Your task to perform on an android device: install app "Pinterest" Image 0: 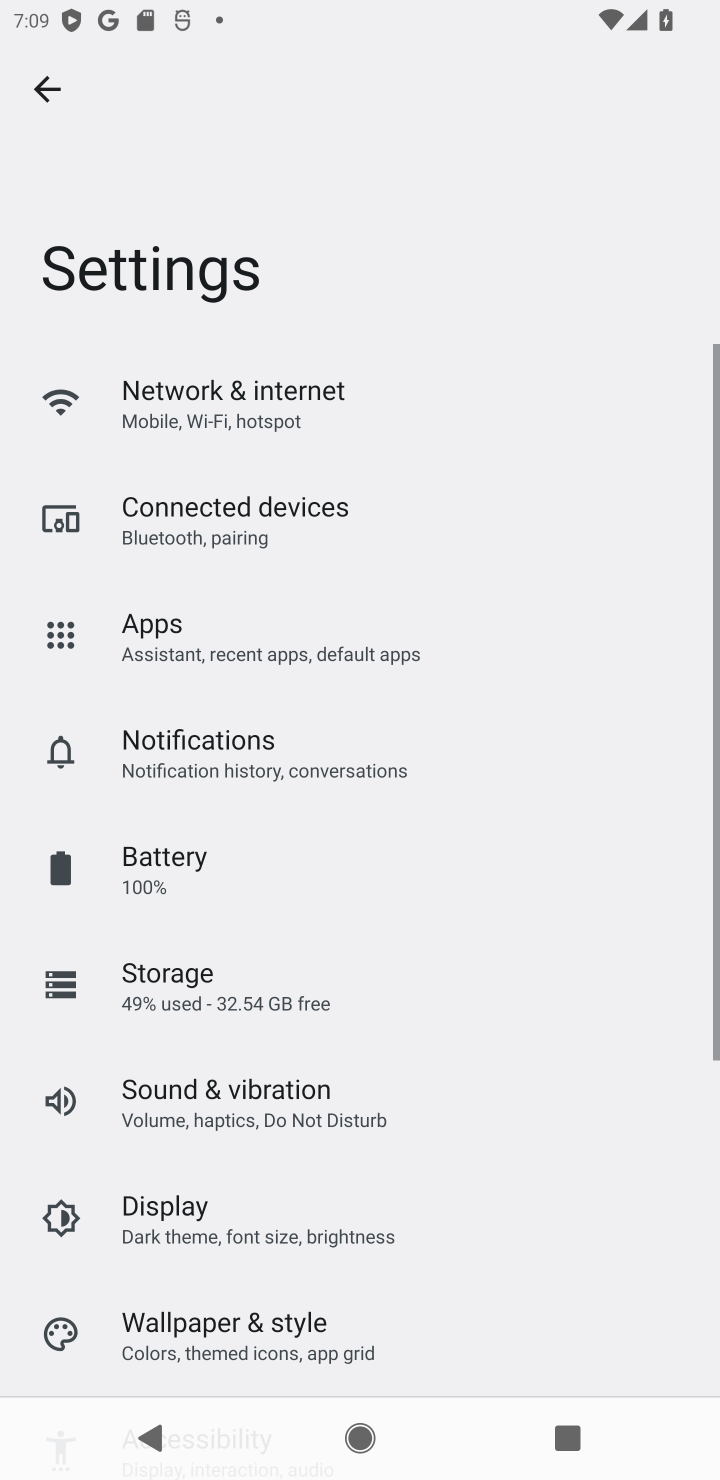
Step 0: press home button
Your task to perform on an android device: install app "Pinterest" Image 1: 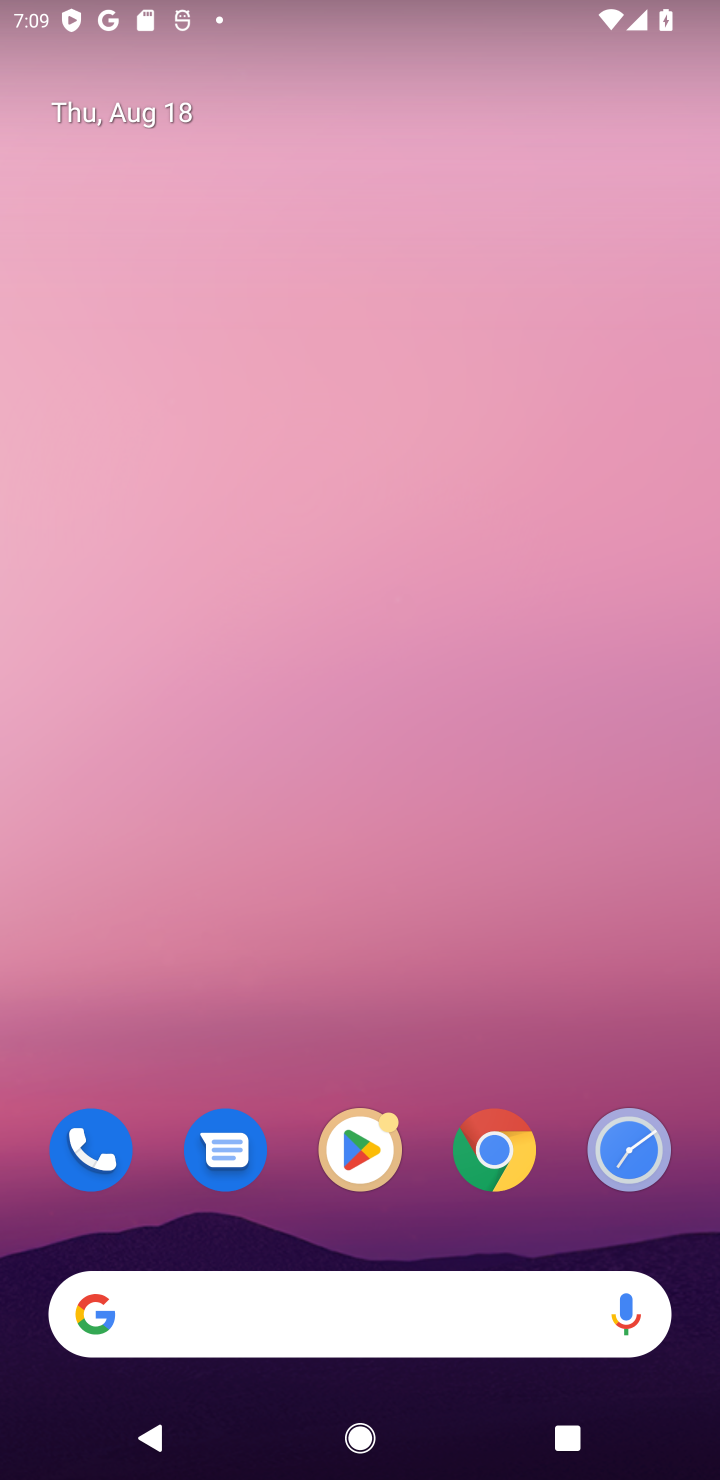
Step 1: drag from (408, 1255) to (232, 107)
Your task to perform on an android device: install app "Pinterest" Image 2: 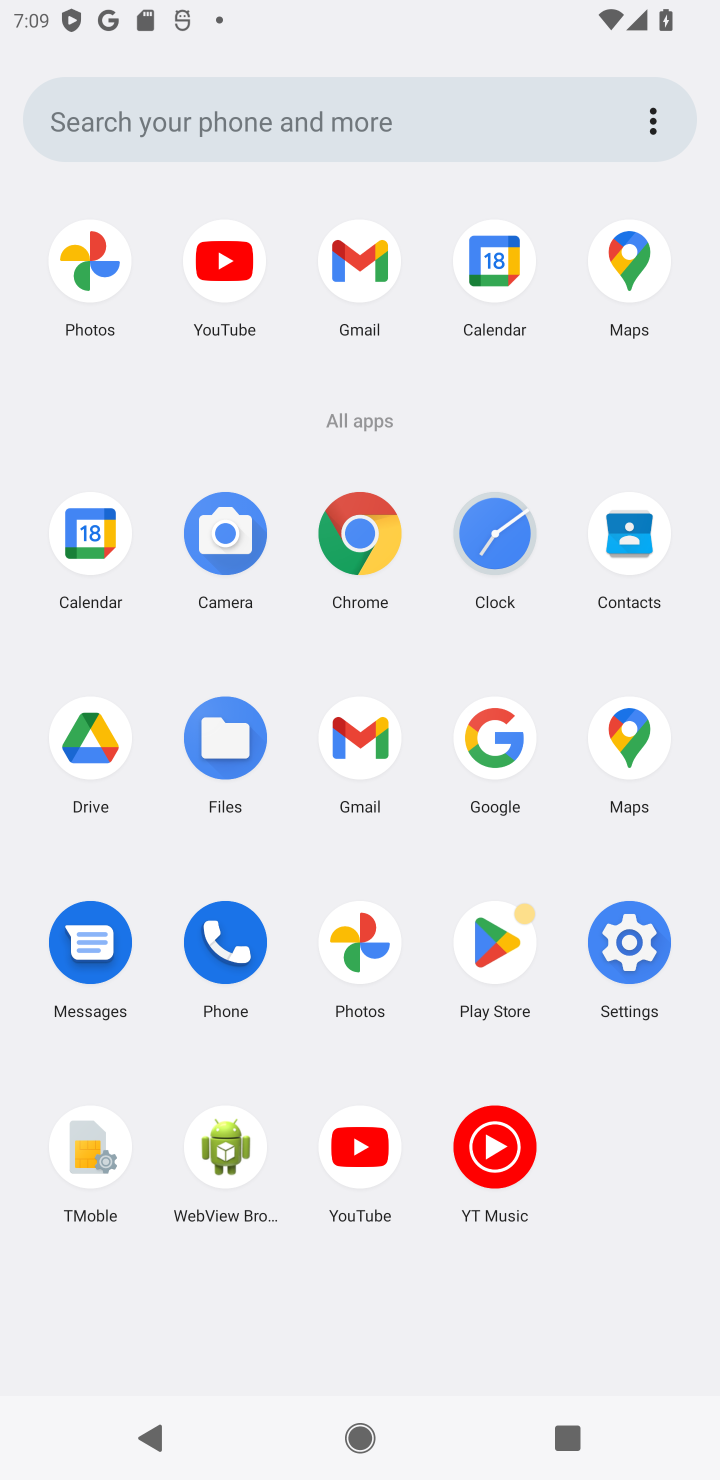
Step 2: click (497, 939)
Your task to perform on an android device: install app "Pinterest" Image 3: 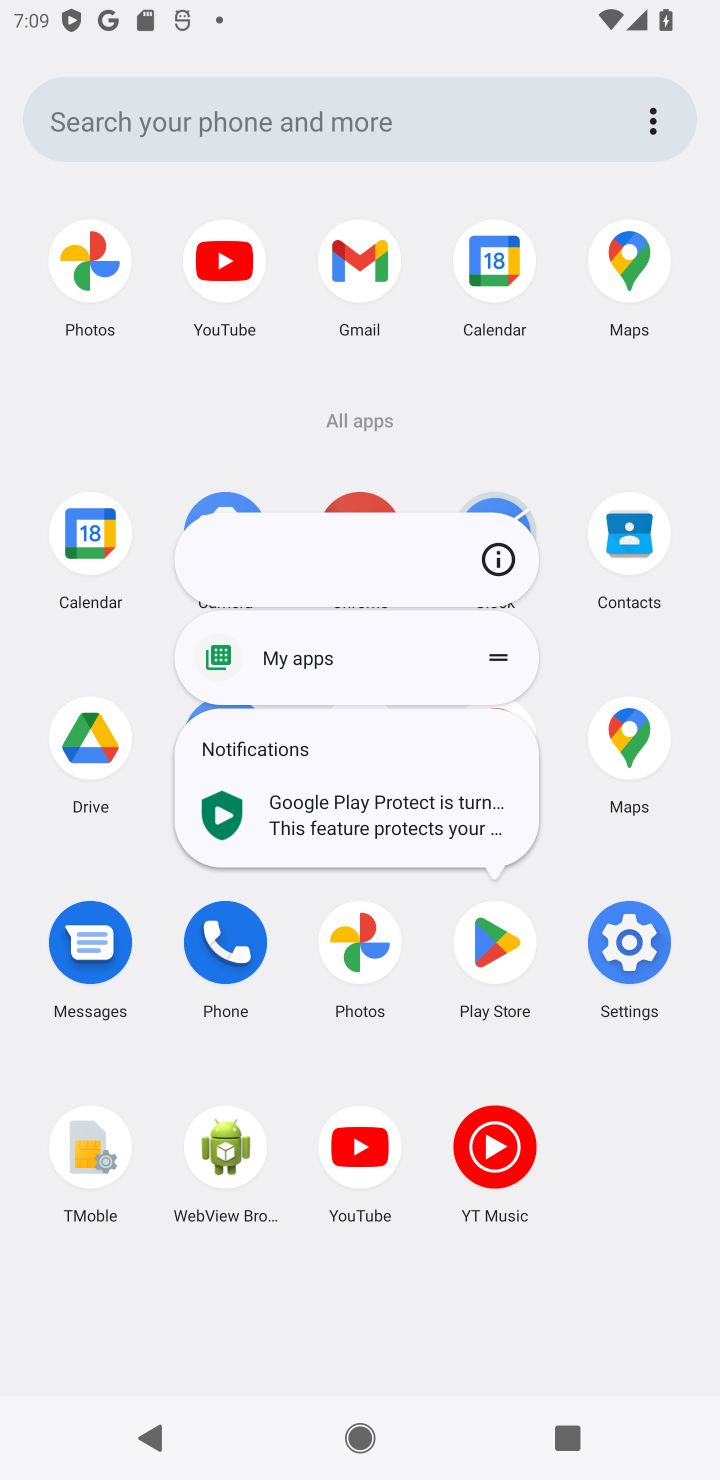
Step 3: click (515, 979)
Your task to perform on an android device: install app "Pinterest" Image 4: 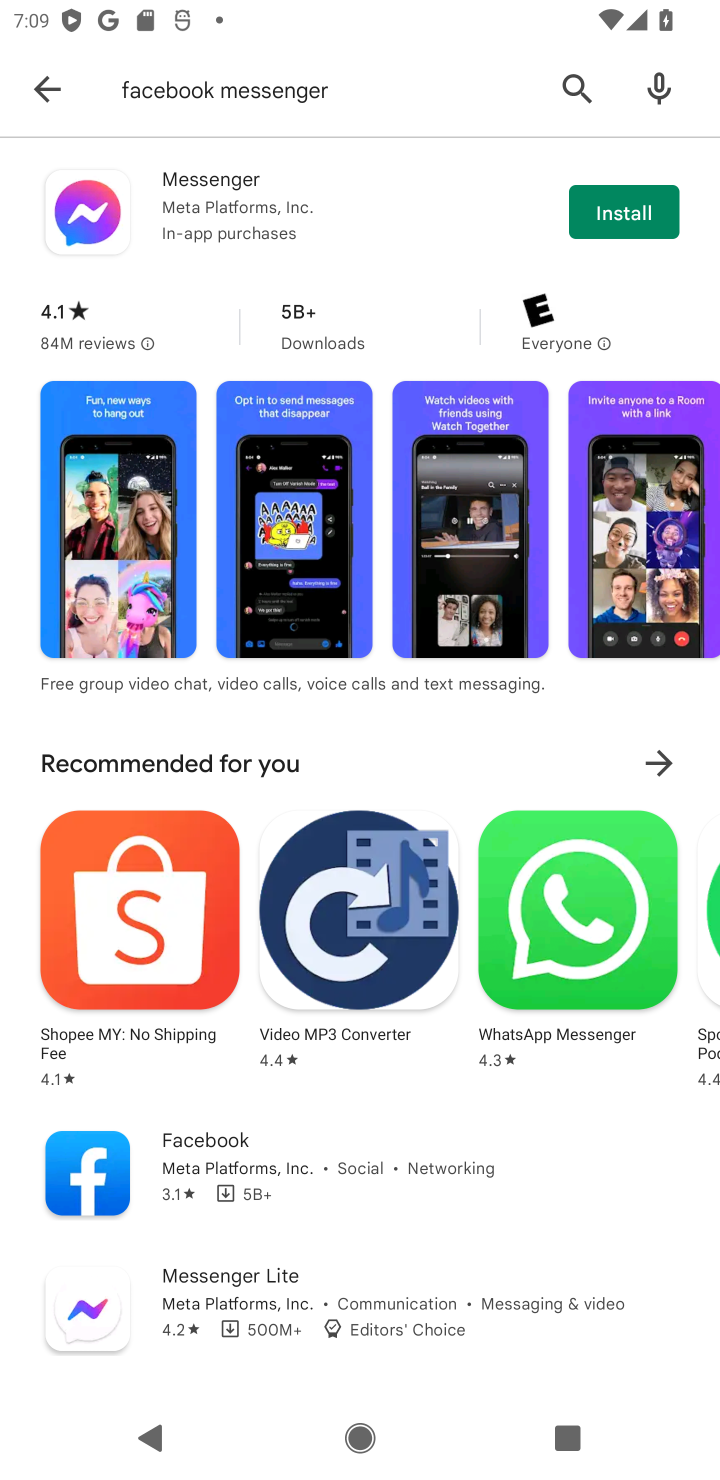
Step 4: click (35, 79)
Your task to perform on an android device: install app "Pinterest" Image 5: 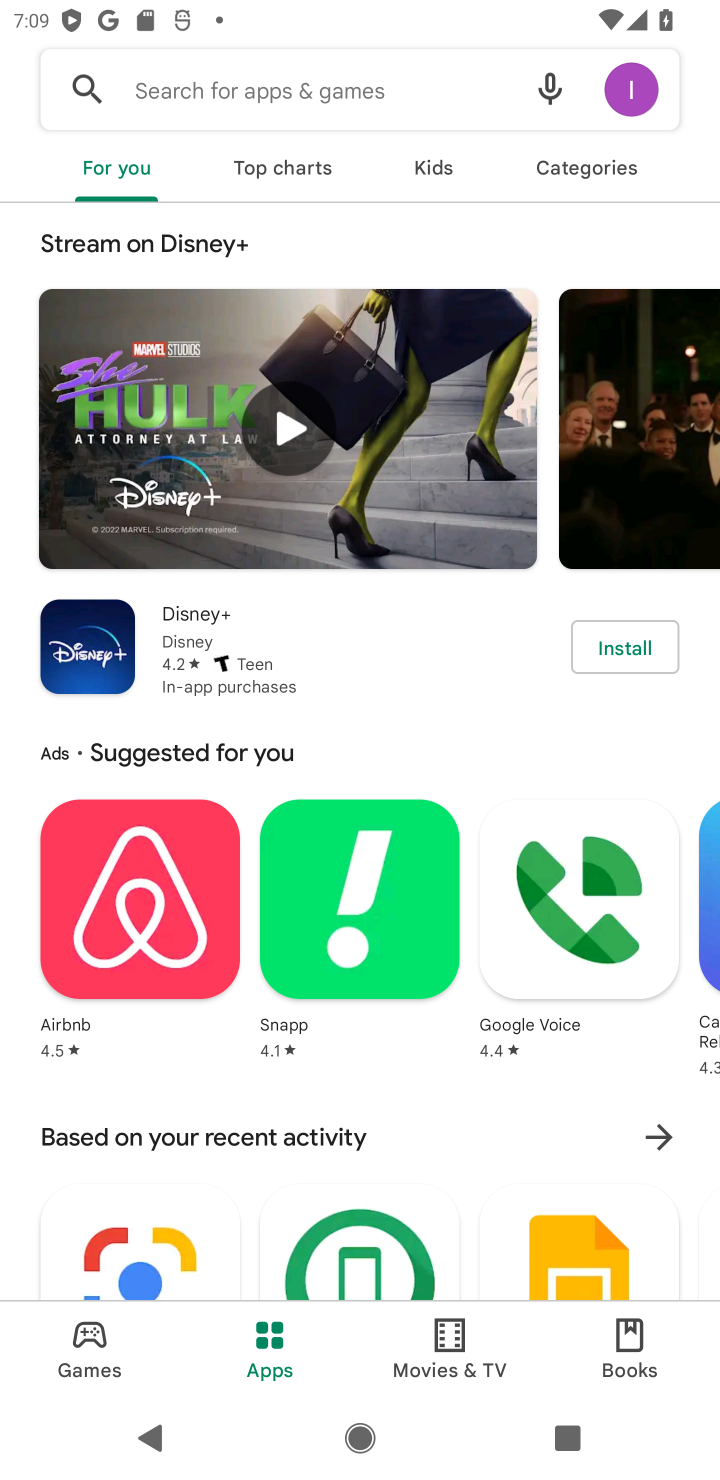
Step 5: click (168, 91)
Your task to perform on an android device: install app "Pinterest" Image 6: 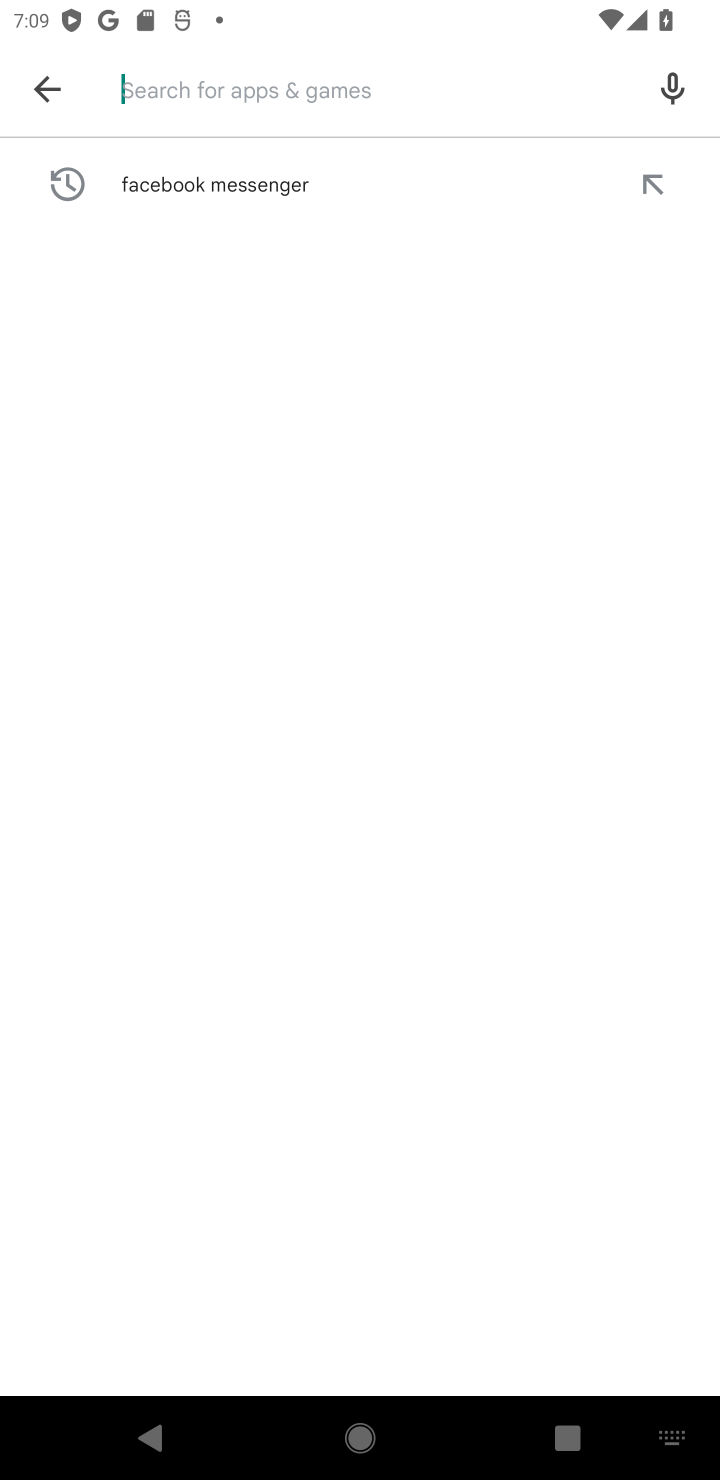
Step 6: type "Pinterest"
Your task to perform on an android device: install app "Pinterest" Image 7: 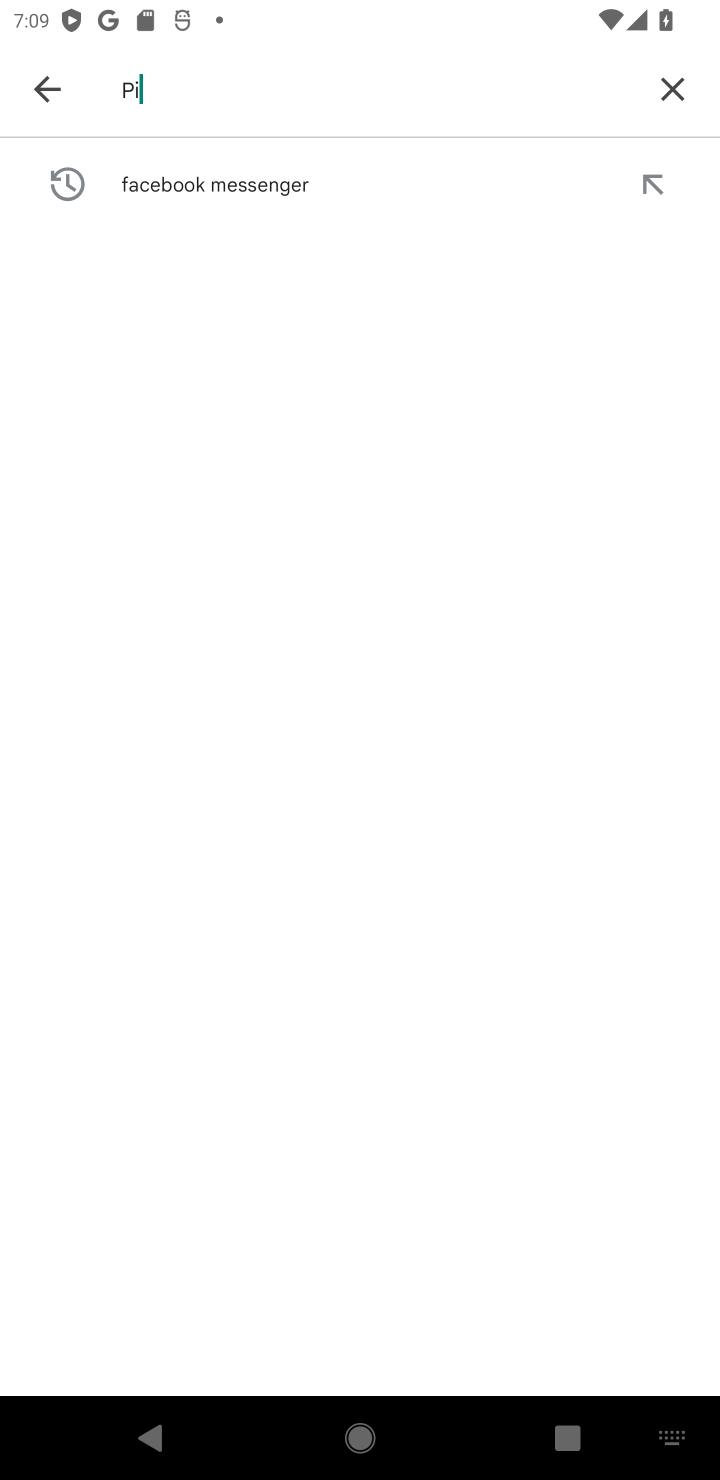
Step 7: type ""
Your task to perform on an android device: install app "Pinterest" Image 8: 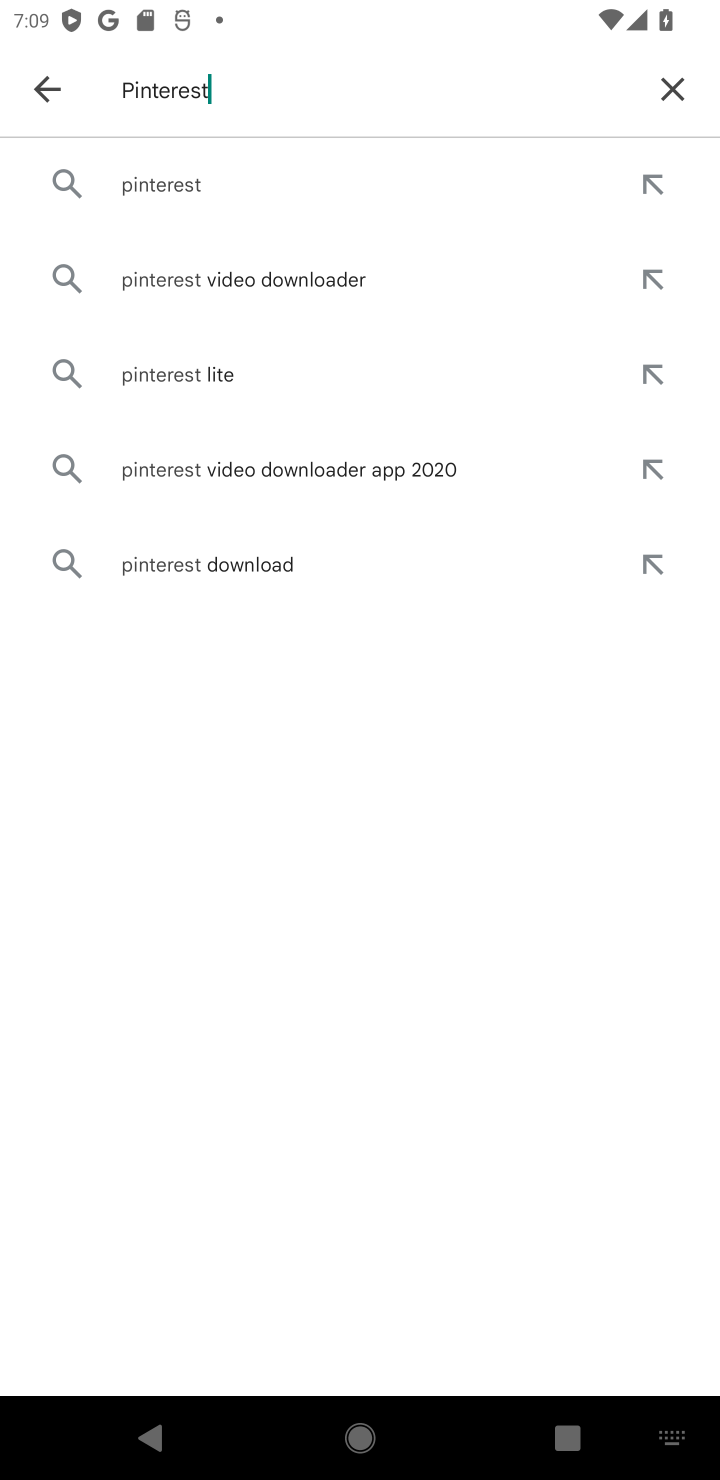
Step 8: click (115, 193)
Your task to perform on an android device: install app "Pinterest" Image 9: 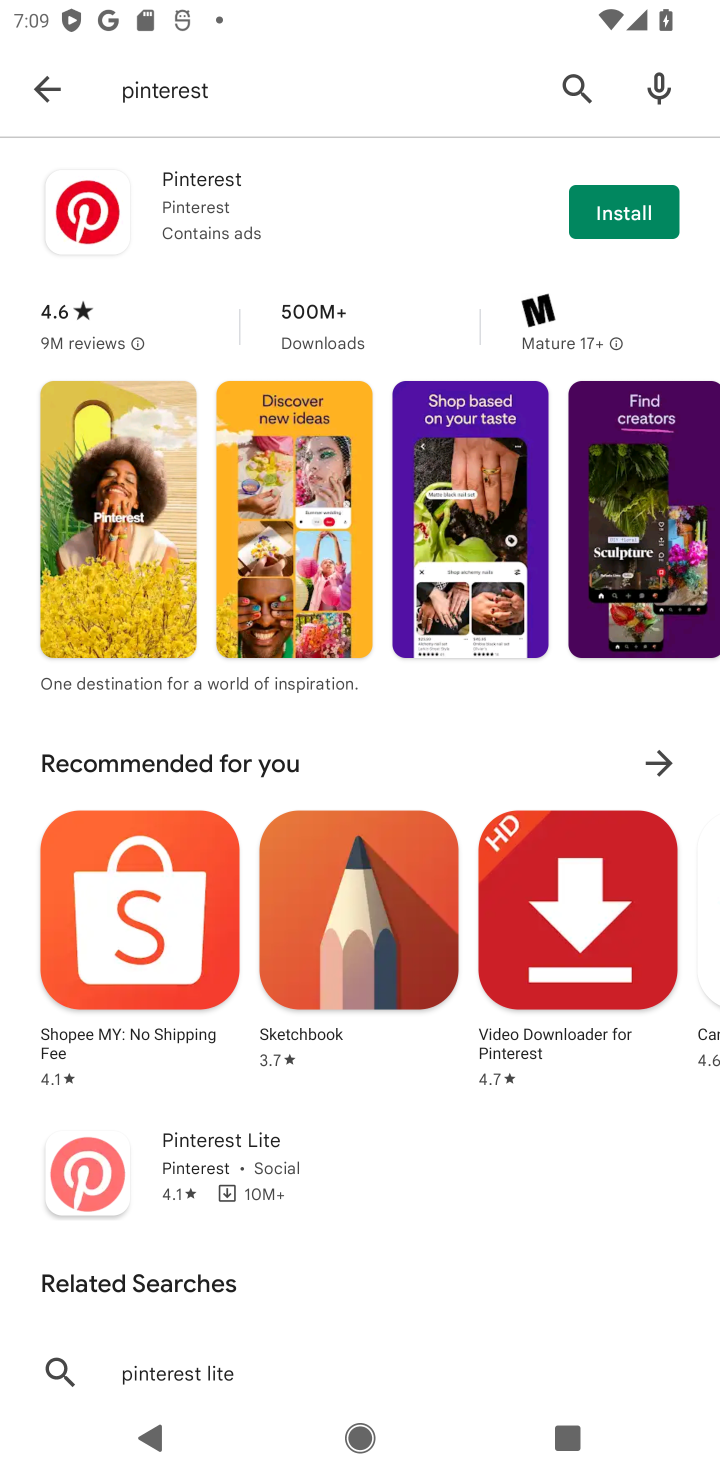
Step 9: click (623, 213)
Your task to perform on an android device: install app "Pinterest" Image 10: 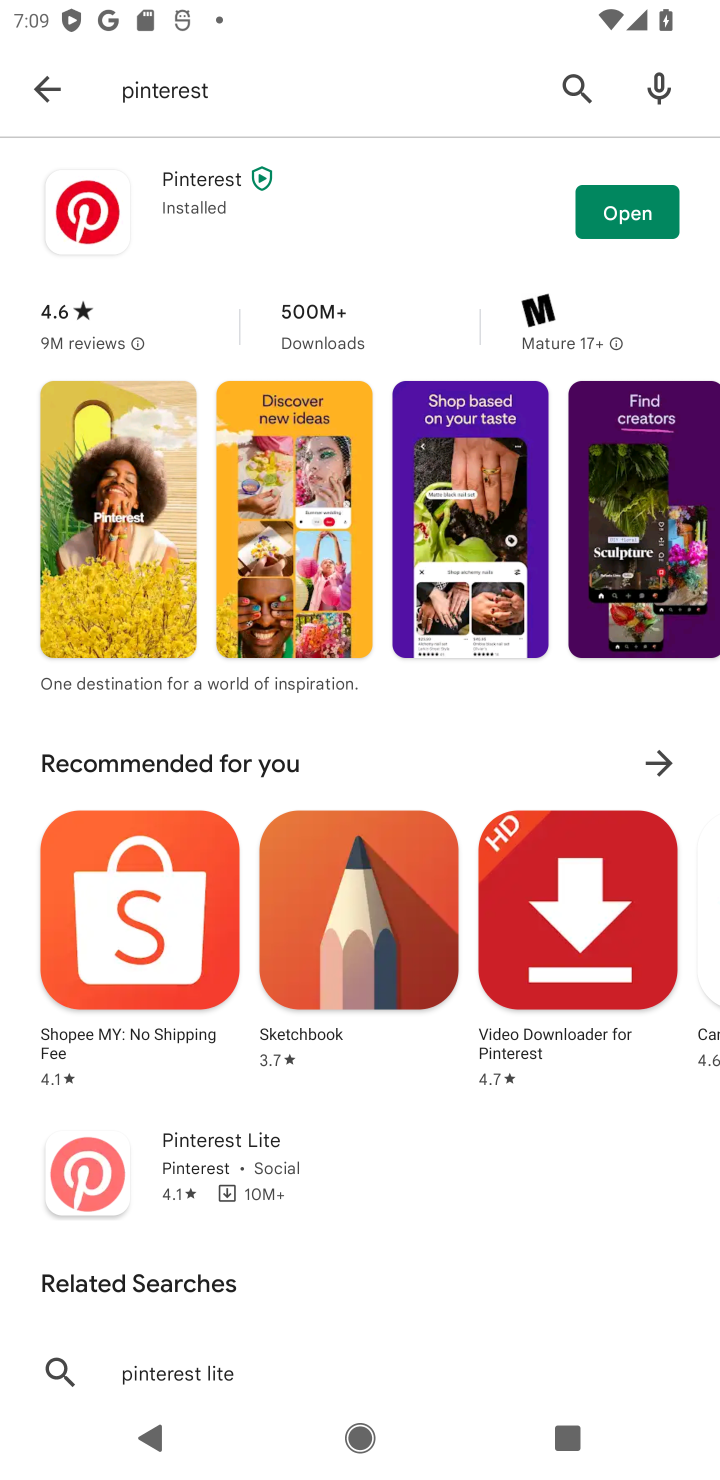
Step 10: click (637, 198)
Your task to perform on an android device: install app "Pinterest" Image 11: 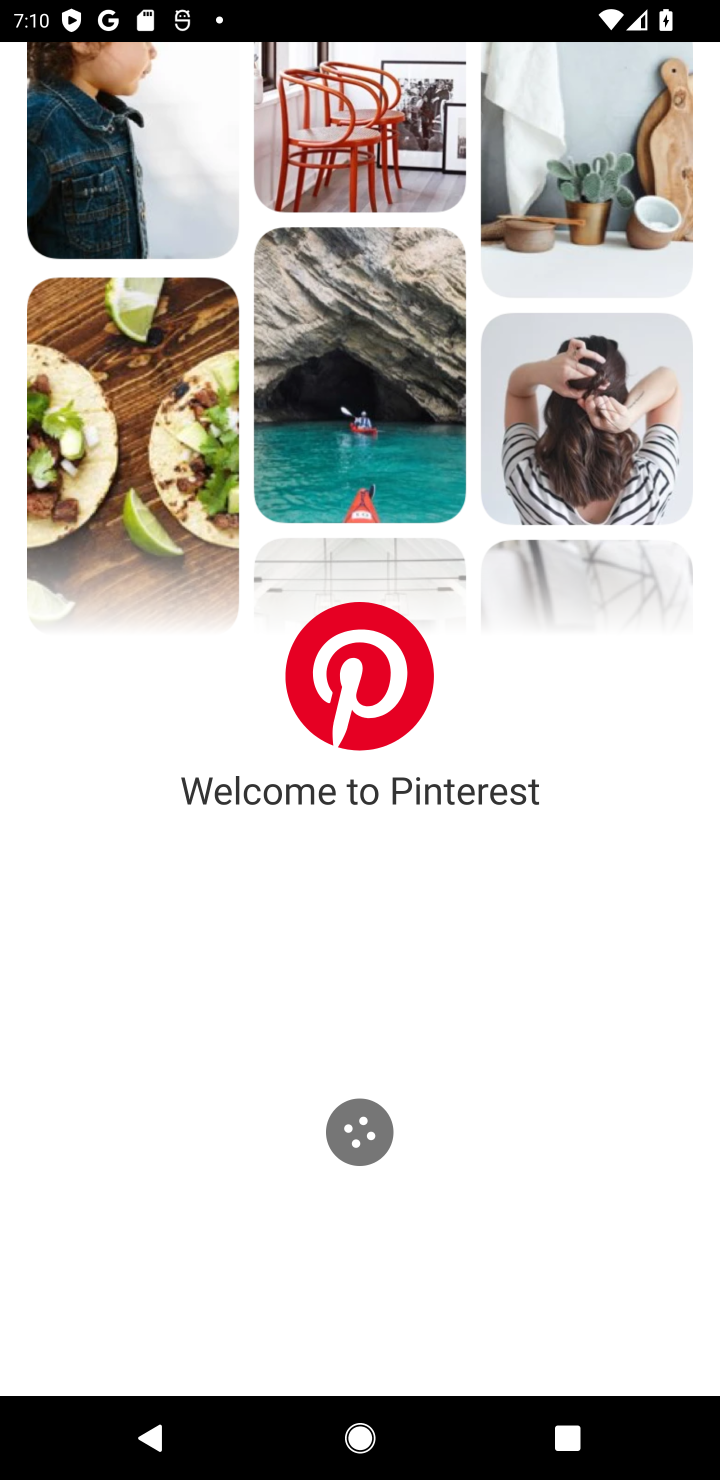
Step 11: task complete